Your task to perform on an android device: Open the calendar and show me this week's events? Image 0: 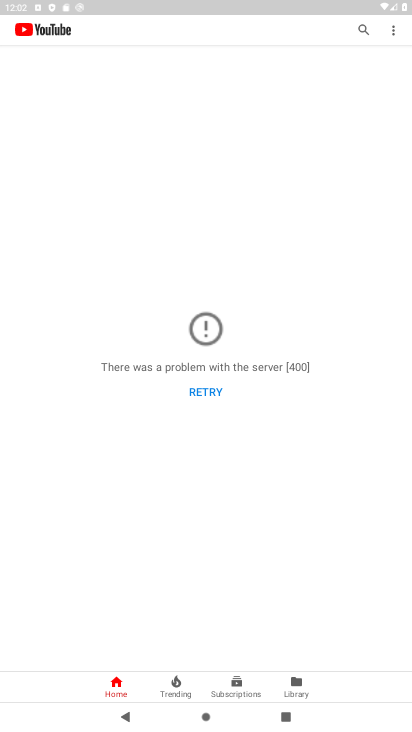
Step 0: press home button
Your task to perform on an android device: Open the calendar and show me this week's events? Image 1: 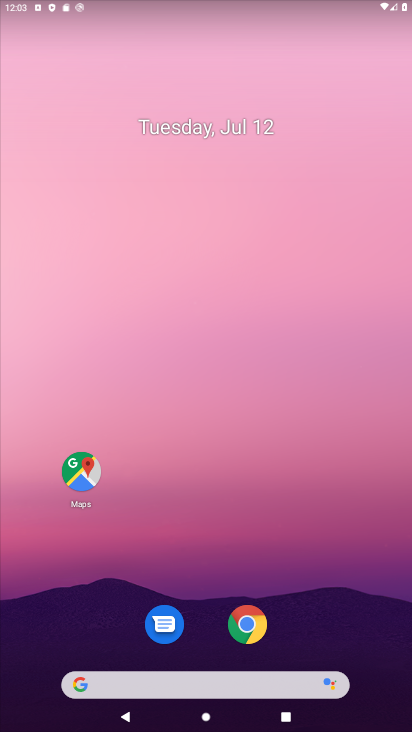
Step 1: drag from (204, 630) to (259, 96)
Your task to perform on an android device: Open the calendar and show me this week's events? Image 2: 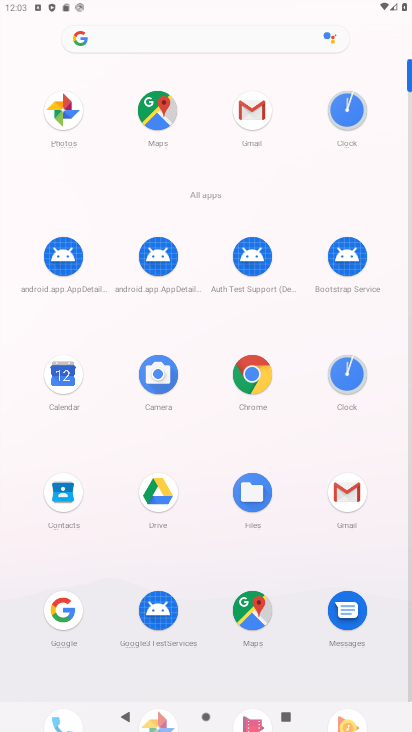
Step 2: click (38, 382)
Your task to perform on an android device: Open the calendar and show me this week's events? Image 3: 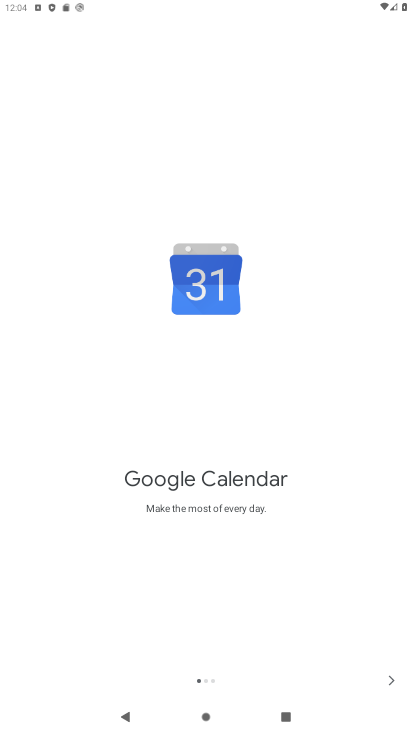
Step 3: click (393, 668)
Your task to perform on an android device: Open the calendar and show me this week's events? Image 4: 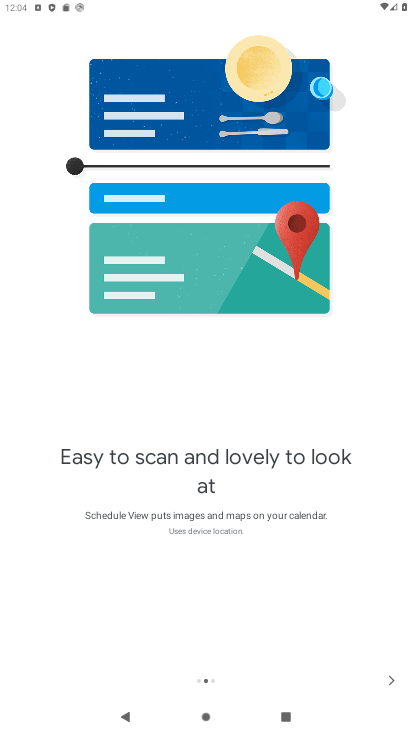
Step 4: click (392, 669)
Your task to perform on an android device: Open the calendar and show me this week's events? Image 5: 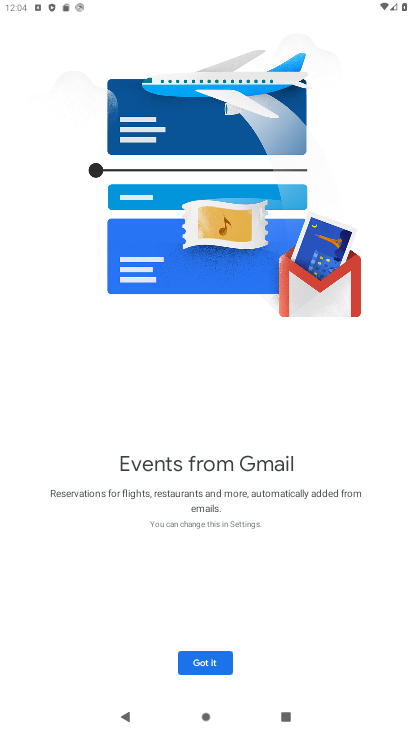
Step 5: click (222, 657)
Your task to perform on an android device: Open the calendar and show me this week's events? Image 6: 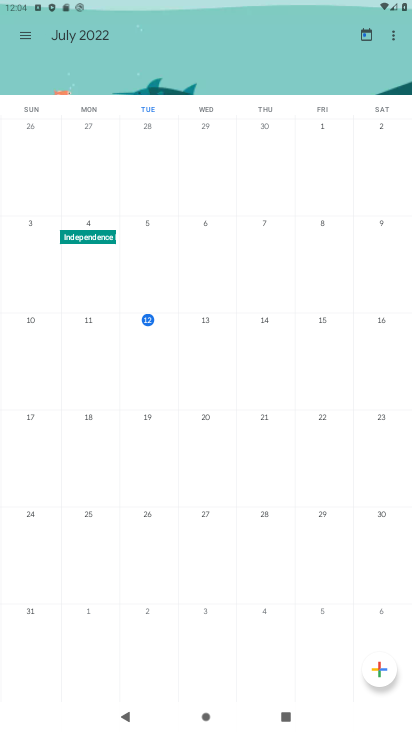
Step 6: click (19, 34)
Your task to perform on an android device: Open the calendar and show me this week's events? Image 7: 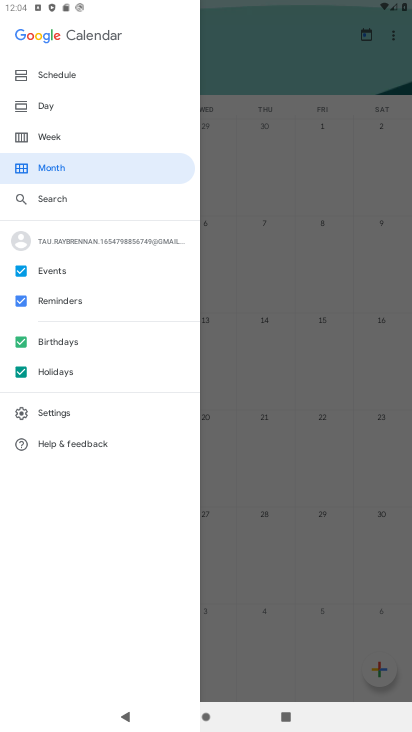
Step 7: click (80, 74)
Your task to perform on an android device: Open the calendar and show me this week's events? Image 8: 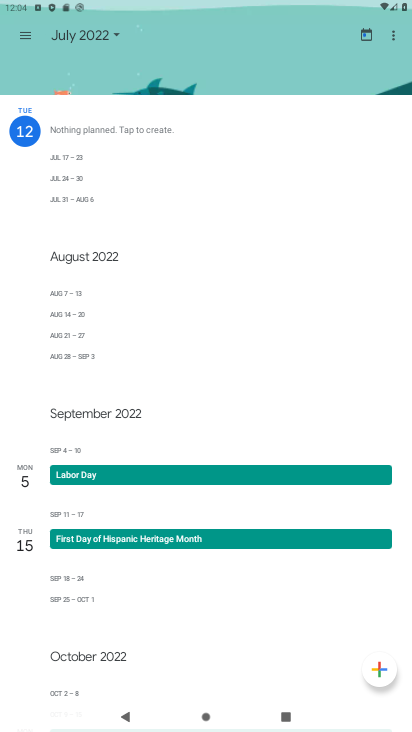
Step 8: task complete